Your task to perform on an android device: show emergency info Image 0: 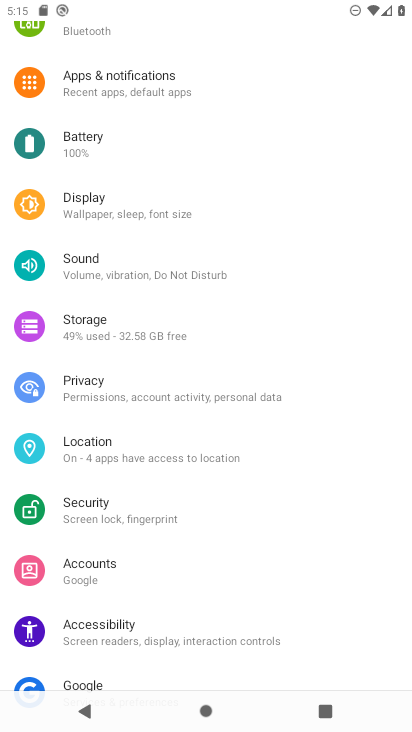
Step 0: press home button
Your task to perform on an android device: show emergency info Image 1: 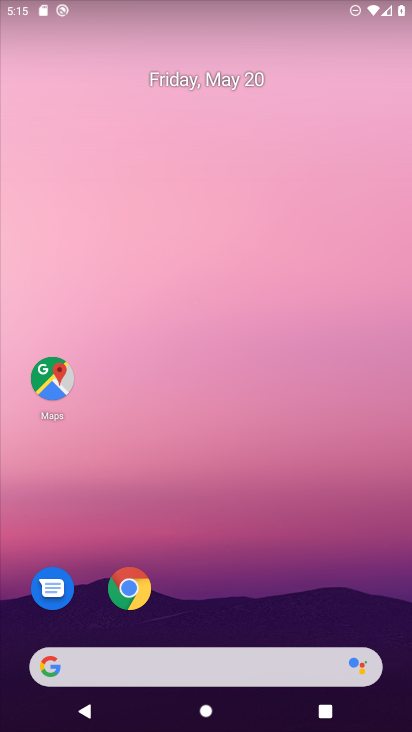
Step 1: drag from (236, 525) to (257, 174)
Your task to perform on an android device: show emergency info Image 2: 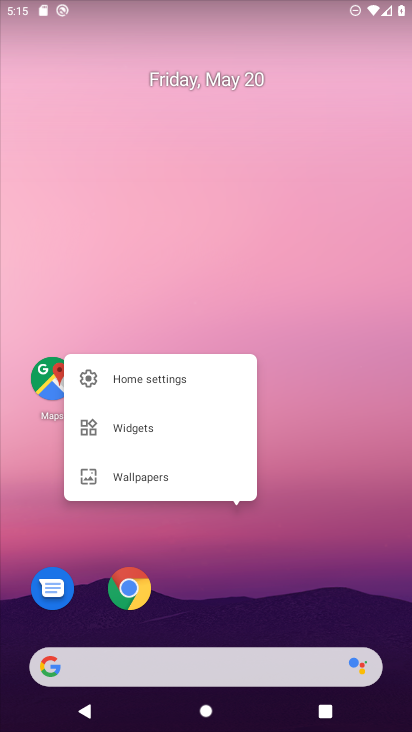
Step 2: click (221, 541)
Your task to perform on an android device: show emergency info Image 3: 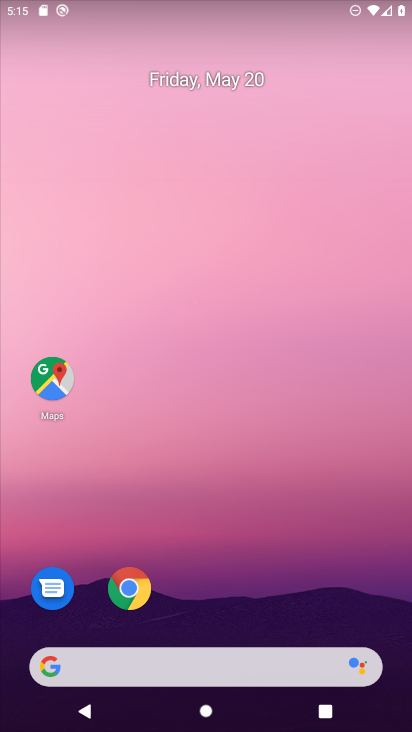
Step 3: drag from (218, 577) to (229, 189)
Your task to perform on an android device: show emergency info Image 4: 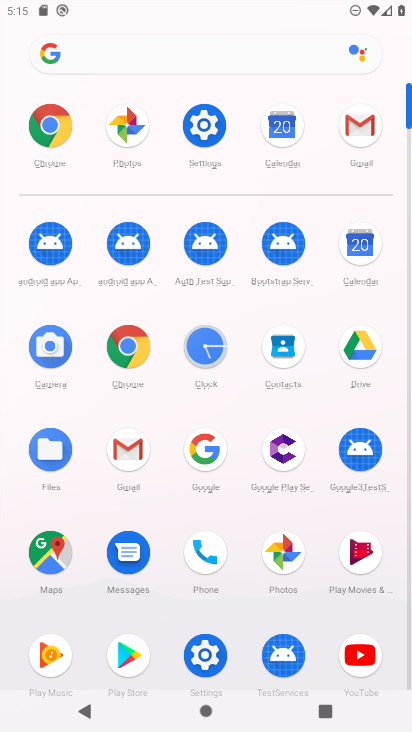
Step 4: click (201, 130)
Your task to perform on an android device: show emergency info Image 5: 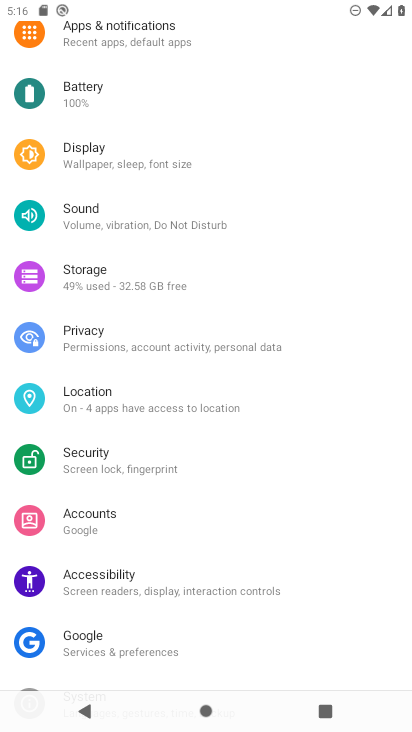
Step 5: drag from (123, 641) to (131, 270)
Your task to perform on an android device: show emergency info Image 6: 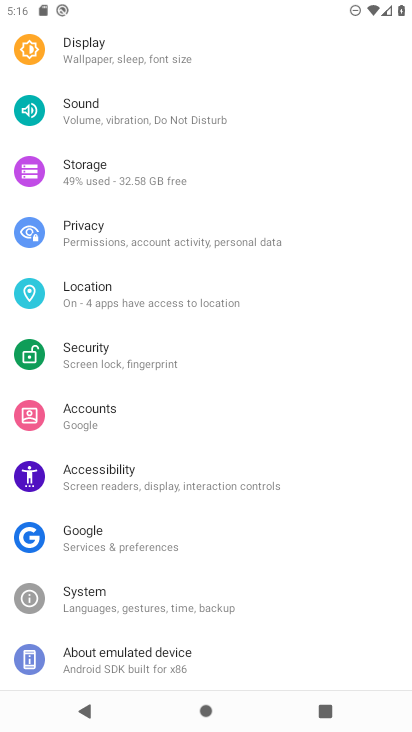
Step 6: click (107, 662)
Your task to perform on an android device: show emergency info Image 7: 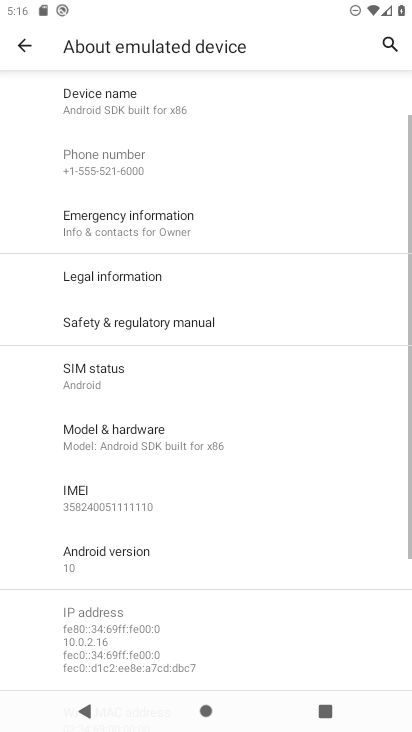
Step 7: click (160, 228)
Your task to perform on an android device: show emergency info Image 8: 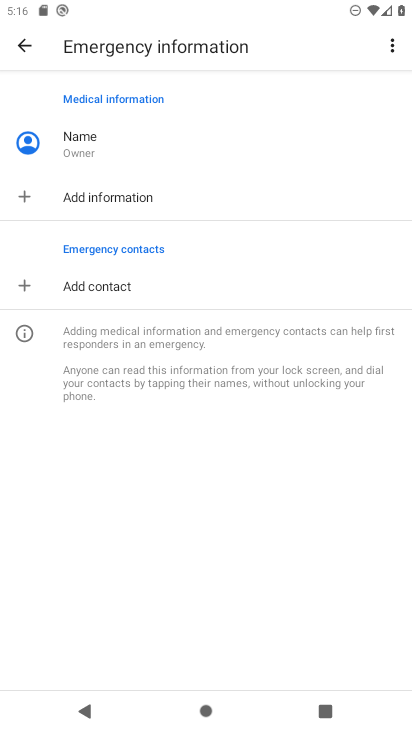
Step 8: task complete